Your task to perform on an android device: Open privacy settings Image 0: 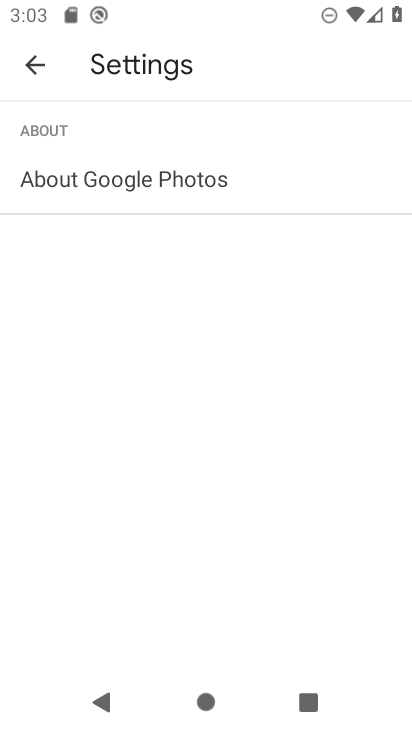
Step 0: press home button
Your task to perform on an android device: Open privacy settings Image 1: 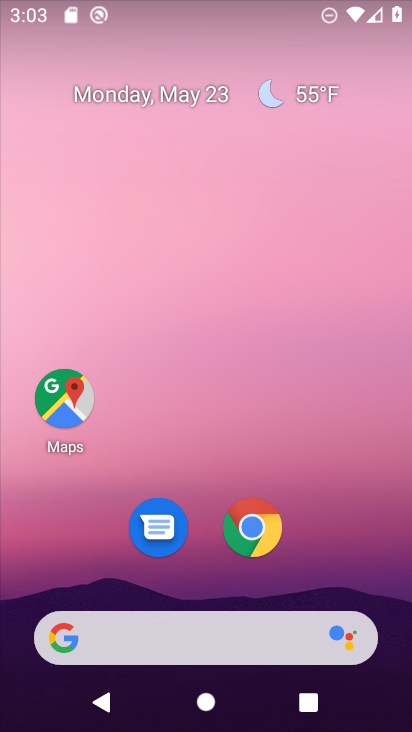
Step 1: drag from (199, 594) to (202, 133)
Your task to perform on an android device: Open privacy settings Image 2: 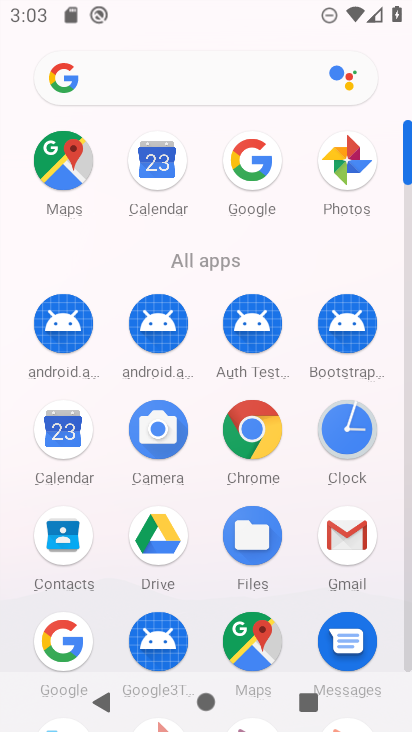
Step 2: drag from (202, 605) to (224, 116)
Your task to perform on an android device: Open privacy settings Image 3: 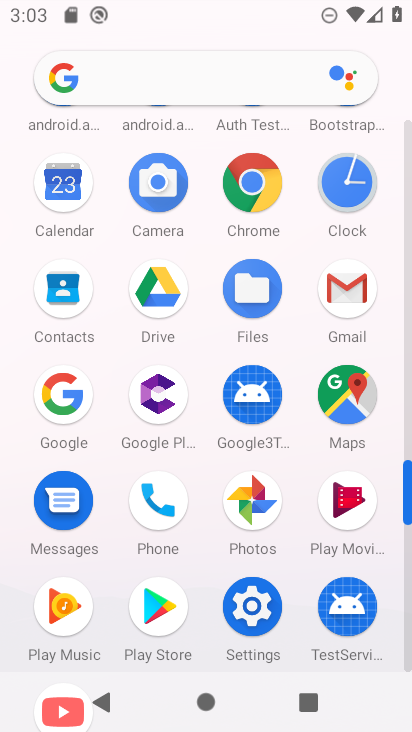
Step 3: click (153, 601)
Your task to perform on an android device: Open privacy settings Image 4: 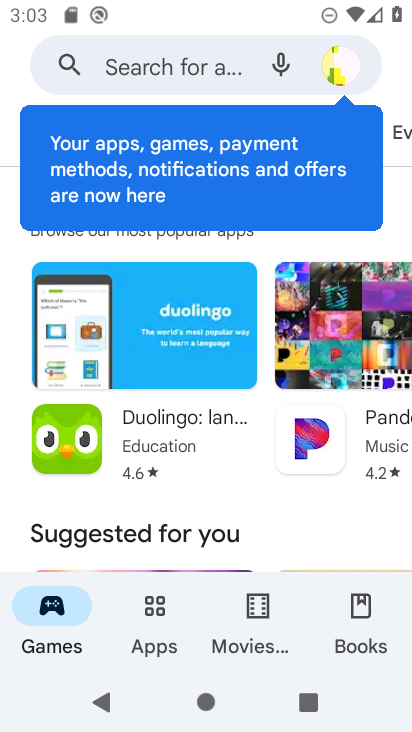
Step 4: press home button
Your task to perform on an android device: Open privacy settings Image 5: 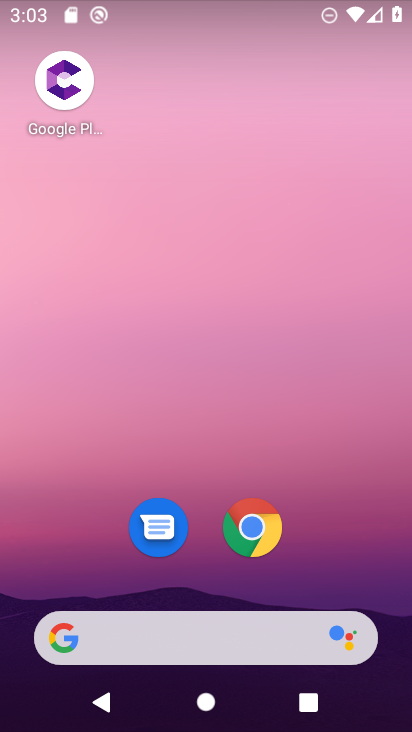
Step 5: drag from (202, 584) to (219, 97)
Your task to perform on an android device: Open privacy settings Image 6: 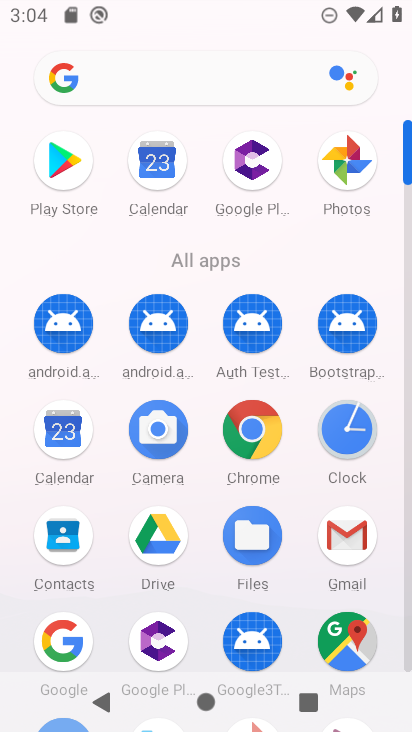
Step 6: drag from (202, 573) to (235, 159)
Your task to perform on an android device: Open privacy settings Image 7: 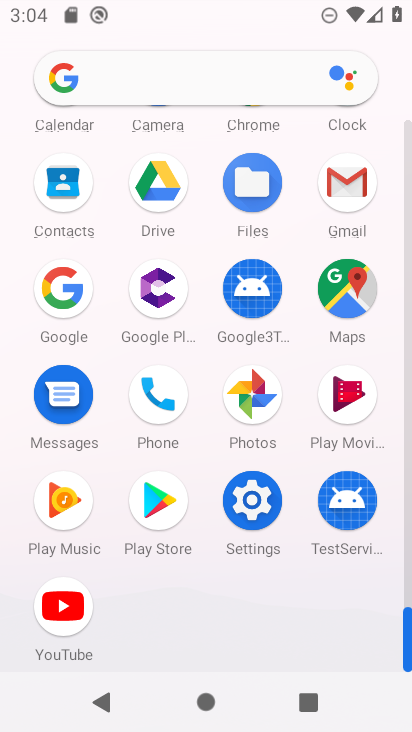
Step 7: click (250, 498)
Your task to perform on an android device: Open privacy settings Image 8: 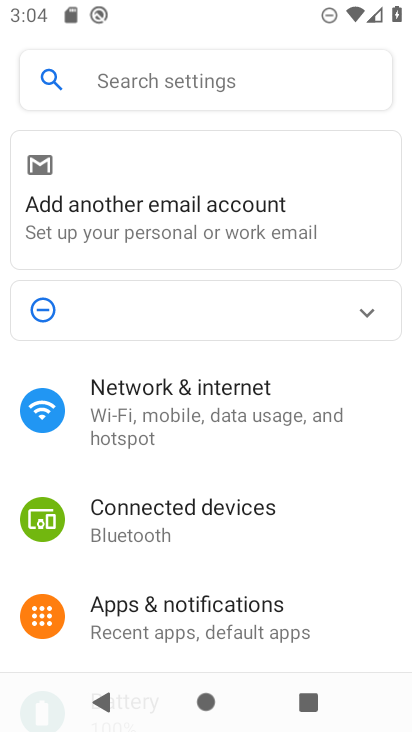
Step 8: drag from (231, 598) to (260, 127)
Your task to perform on an android device: Open privacy settings Image 9: 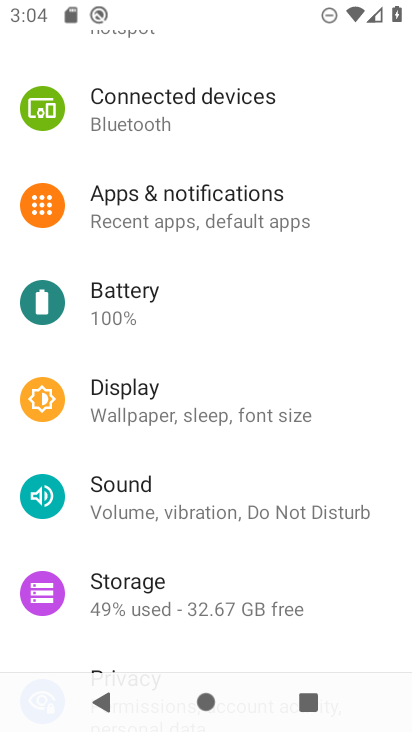
Step 9: drag from (206, 565) to (238, 180)
Your task to perform on an android device: Open privacy settings Image 10: 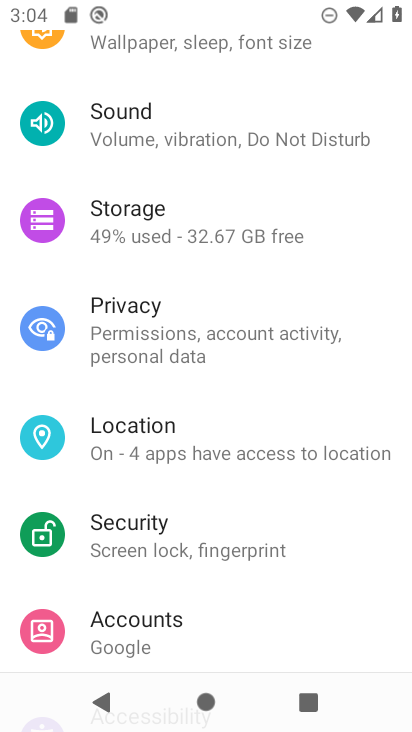
Step 10: click (161, 322)
Your task to perform on an android device: Open privacy settings Image 11: 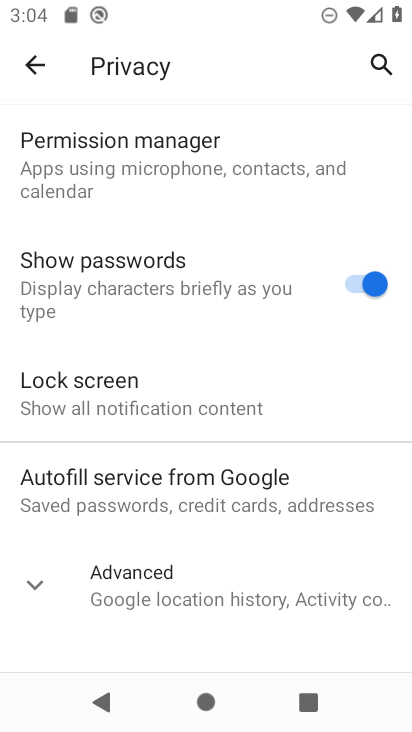
Step 11: click (105, 577)
Your task to perform on an android device: Open privacy settings Image 12: 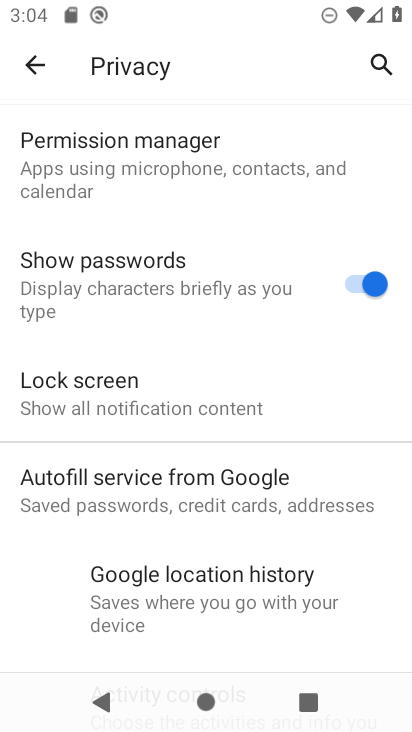
Step 12: task complete